Your task to perform on an android device: turn on data saver in the chrome app Image 0: 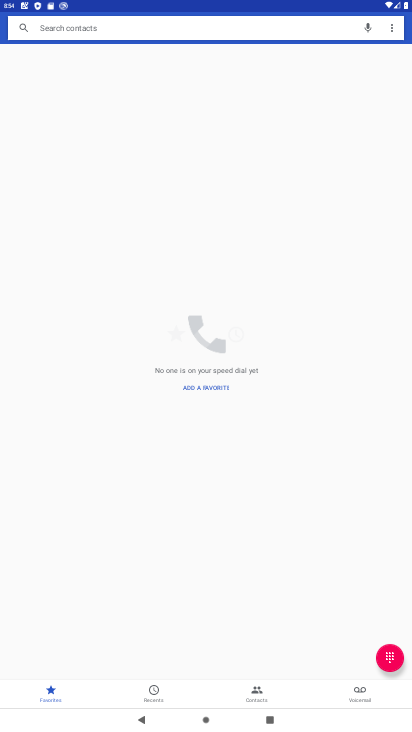
Step 0: click (394, 33)
Your task to perform on an android device: turn on data saver in the chrome app Image 1: 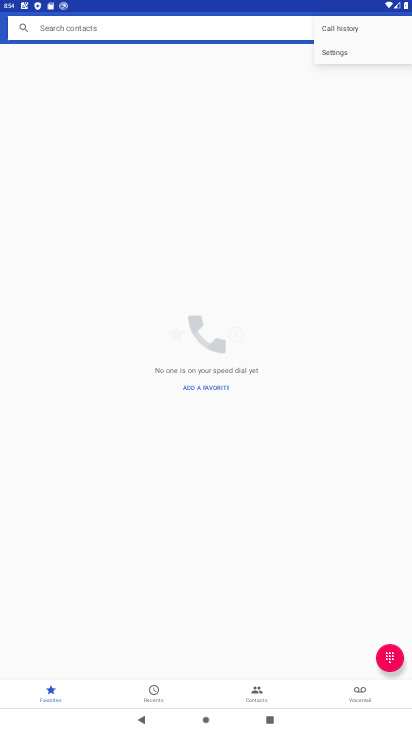
Step 1: click (238, 328)
Your task to perform on an android device: turn on data saver in the chrome app Image 2: 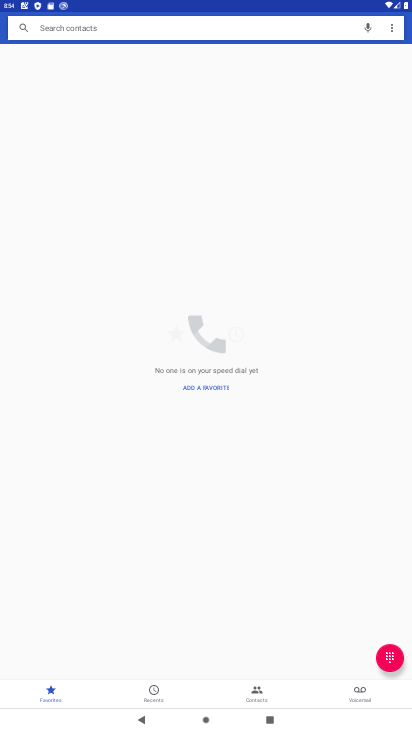
Step 2: task complete